Your task to perform on an android device: What's the news in Brunei? Image 0: 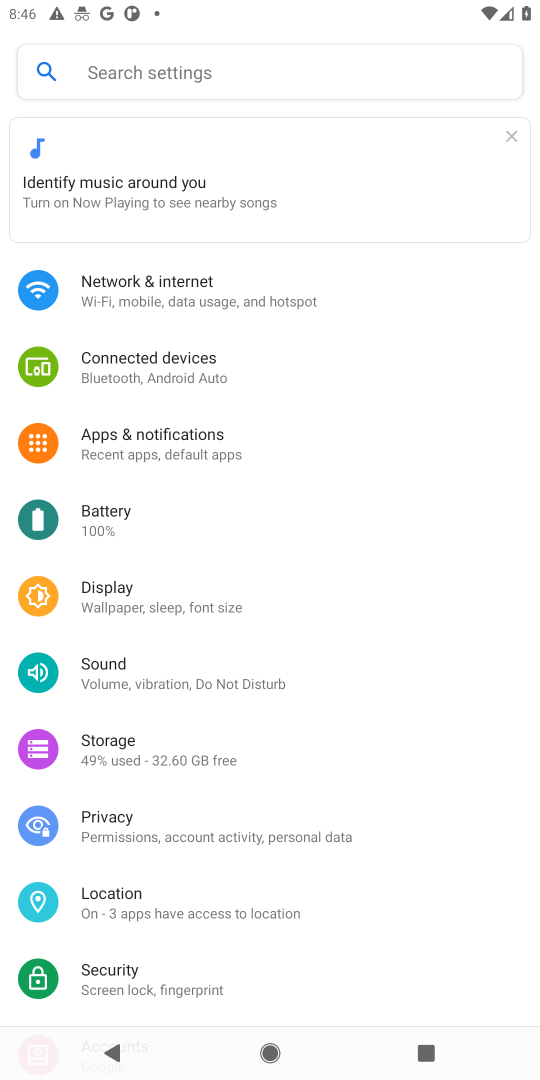
Step 0: press home button
Your task to perform on an android device: What's the news in Brunei? Image 1: 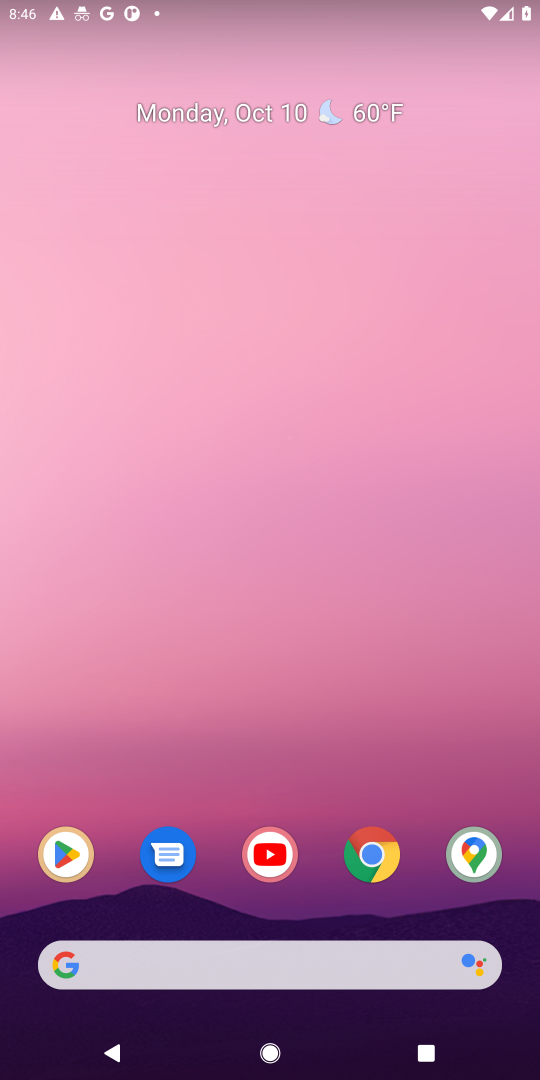
Step 1: click (376, 855)
Your task to perform on an android device: What's the news in Brunei? Image 2: 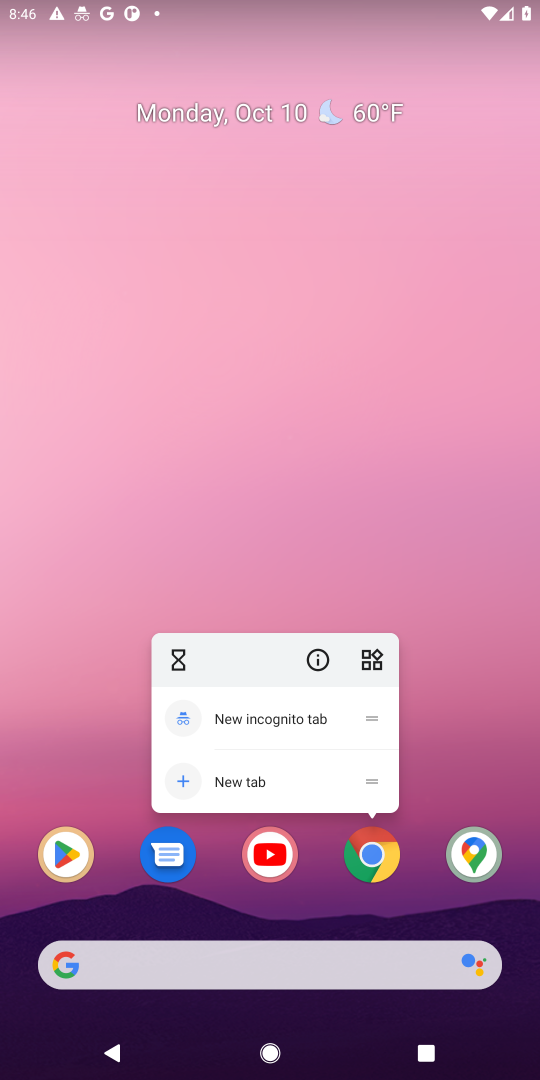
Step 2: click (376, 855)
Your task to perform on an android device: What's the news in Brunei? Image 3: 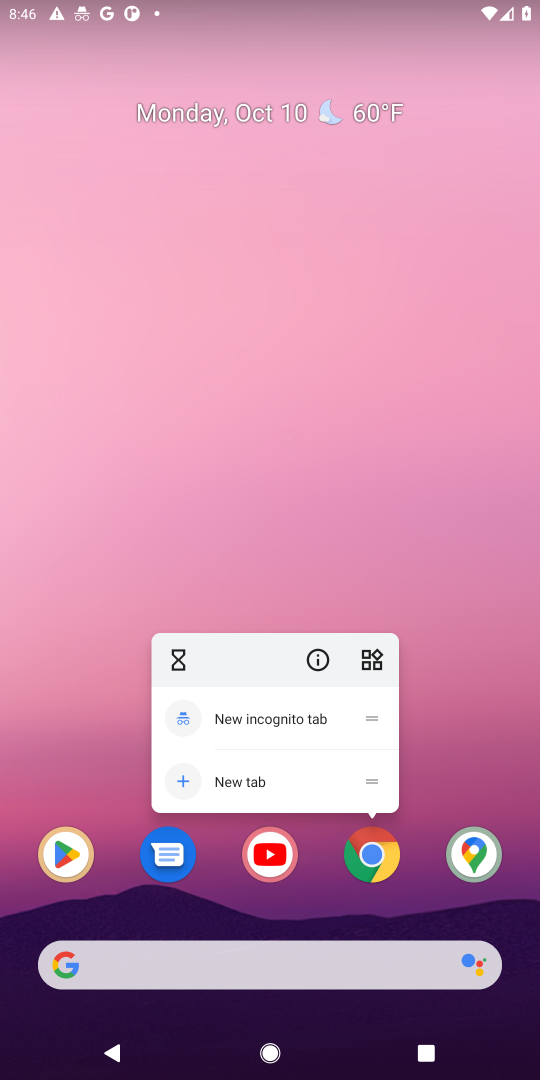
Step 3: click (373, 865)
Your task to perform on an android device: What's the news in Brunei? Image 4: 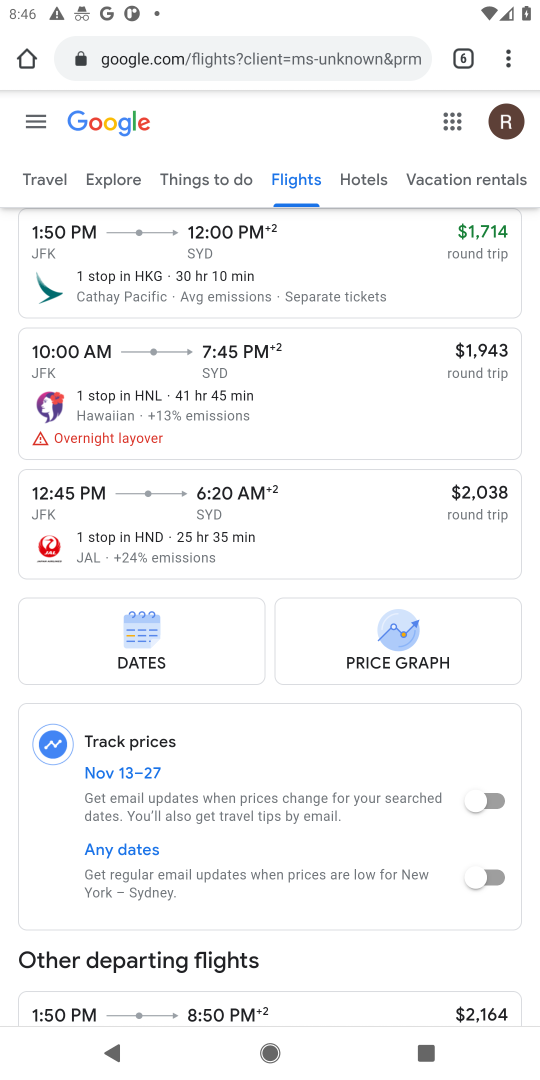
Step 4: click (293, 58)
Your task to perform on an android device: What's the news in Brunei? Image 5: 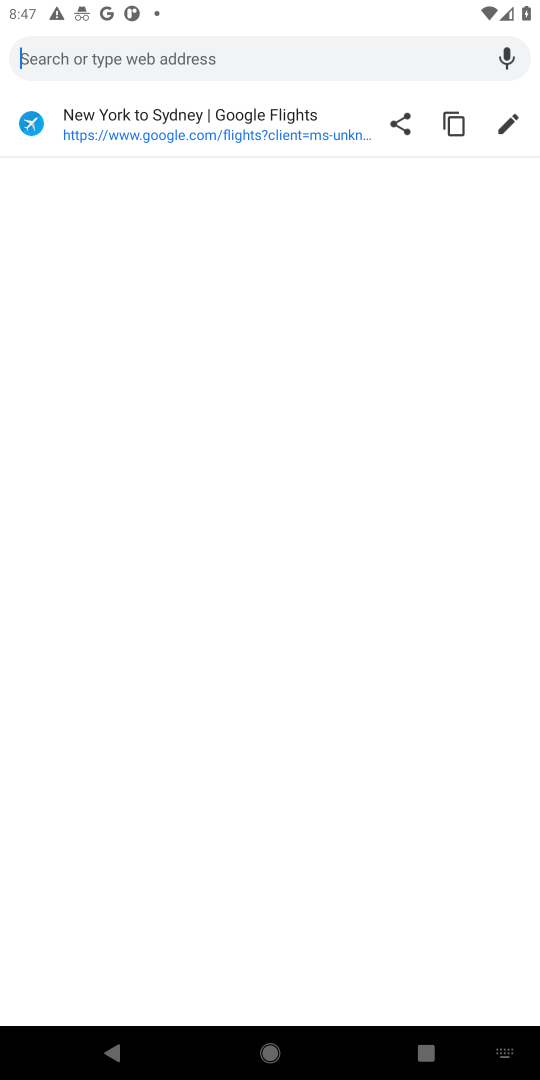
Step 5: type " the news in Brunei"
Your task to perform on an android device: What's the news in Brunei? Image 6: 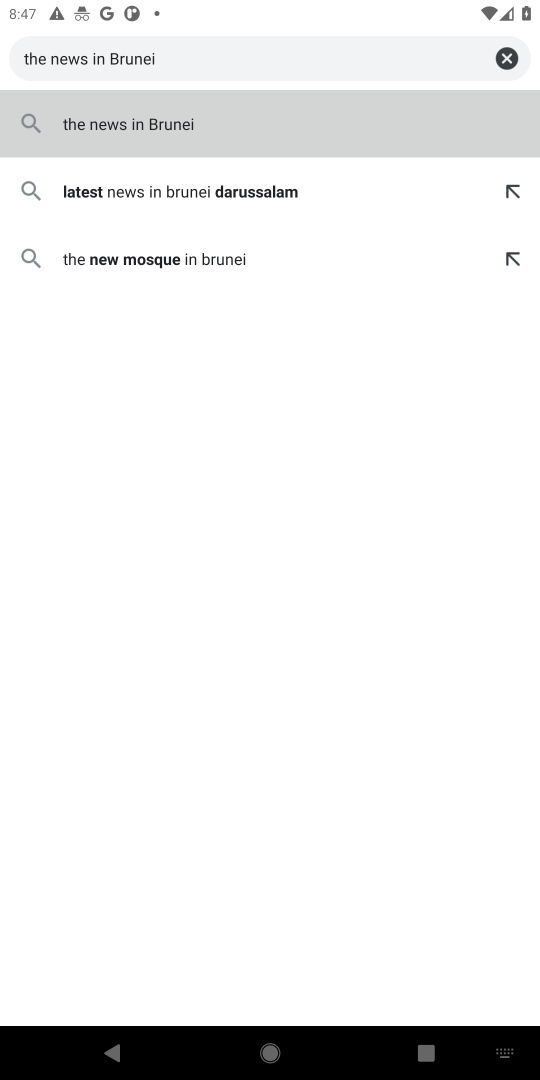
Step 6: click (155, 120)
Your task to perform on an android device: What's the news in Brunei? Image 7: 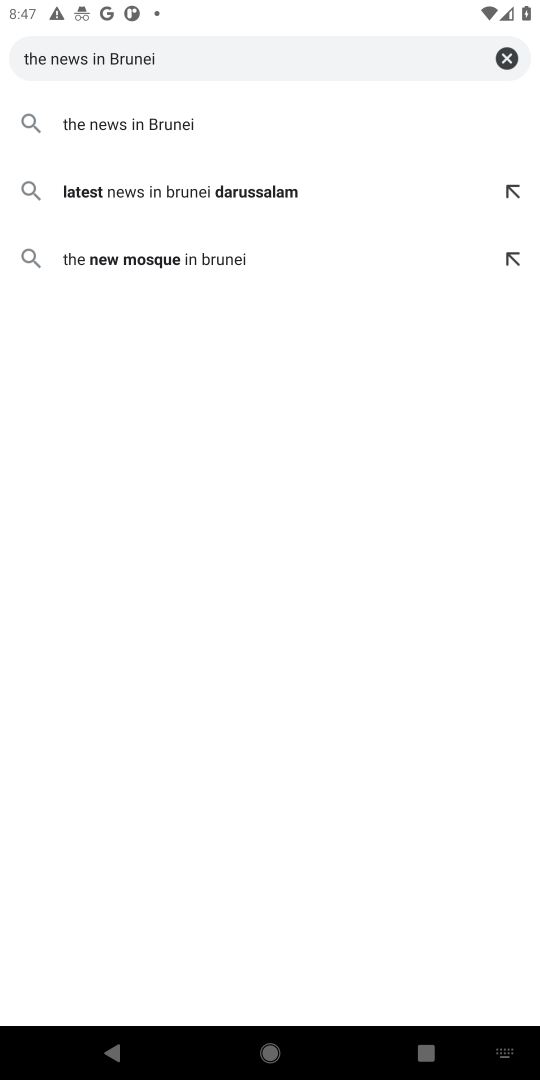
Step 7: click (87, 120)
Your task to perform on an android device: What's the news in Brunei? Image 8: 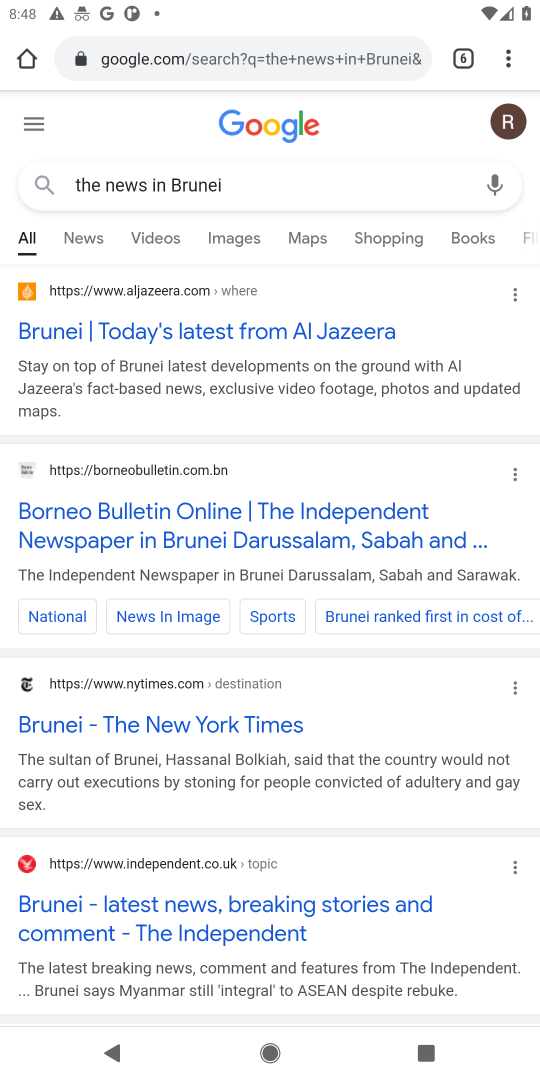
Step 8: click (84, 236)
Your task to perform on an android device: What's the news in Brunei? Image 9: 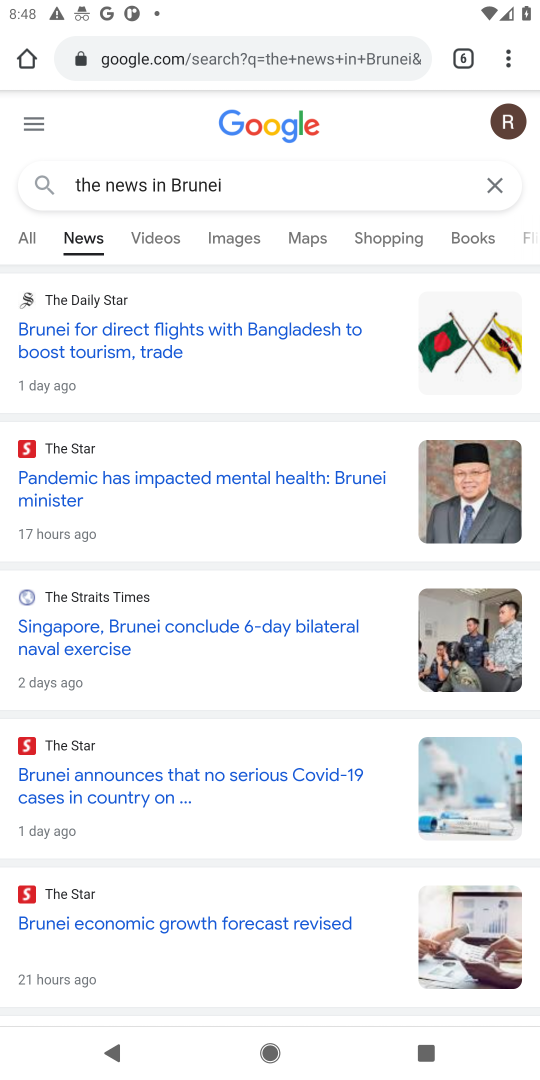
Step 9: task complete